Your task to perform on an android device: Go to Wikipedia Image 0: 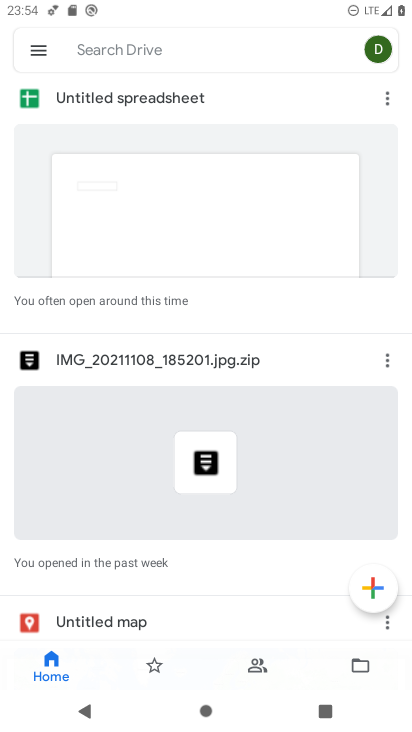
Step 0: press home button
Your task to perform on an android device: Go to Wikipedia Image 1: 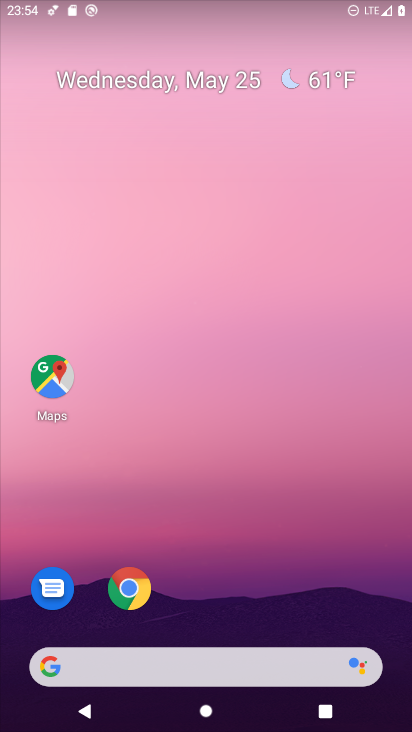
Step 1: click (129, 586)
Your task to perform on an android device: Go to Wikipedia Image 2: 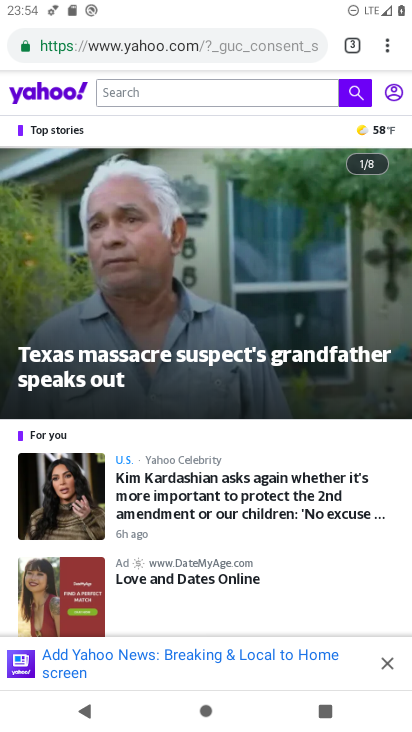
Step 2: click (389, 42)
Your task to perform on an android device: Go to Wikipedia Image 3: 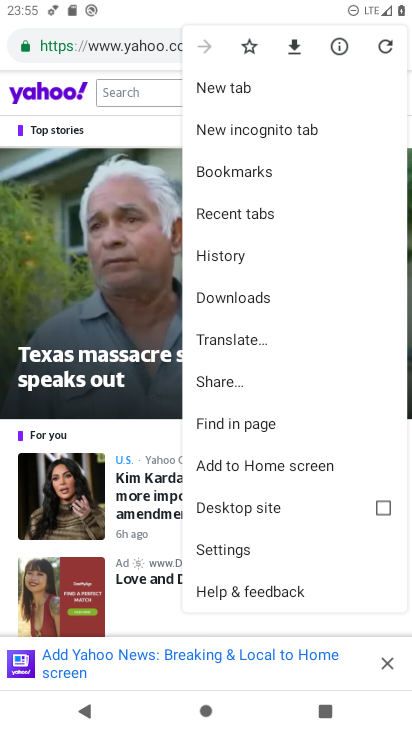
Step 3: click (228, 79)
Your task to perform on an android device: Go to Wikipedia Image 4: 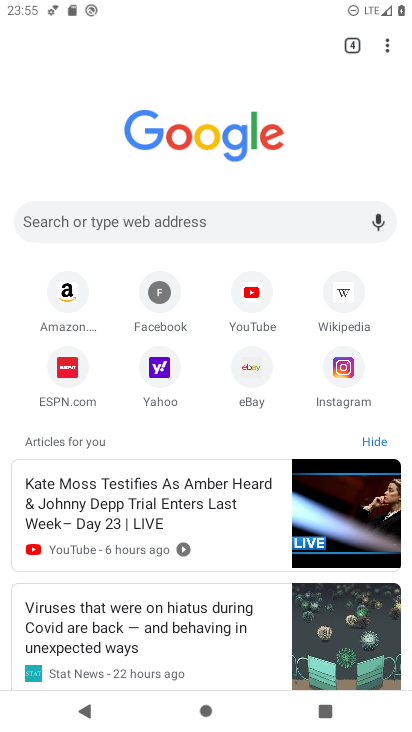
Step 4: click (344, 290)
Your task to perform on an android device: Go to Wikipedia Image 5: 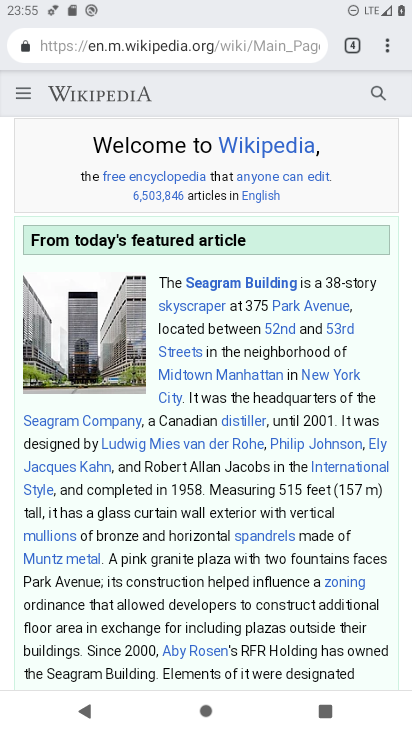
Step 5: task complete